Your task to perform on an android device: Open Android settings Image 0: 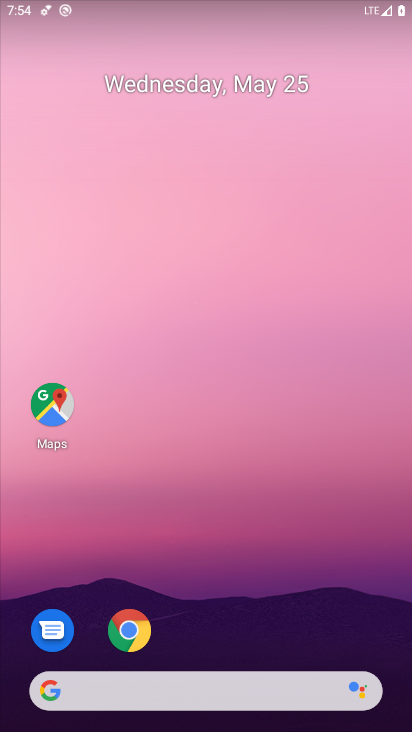
Step 0: drag from (180, 651) to (189, 357)
Your task to perform on an android device: Open Android settings Image 1: 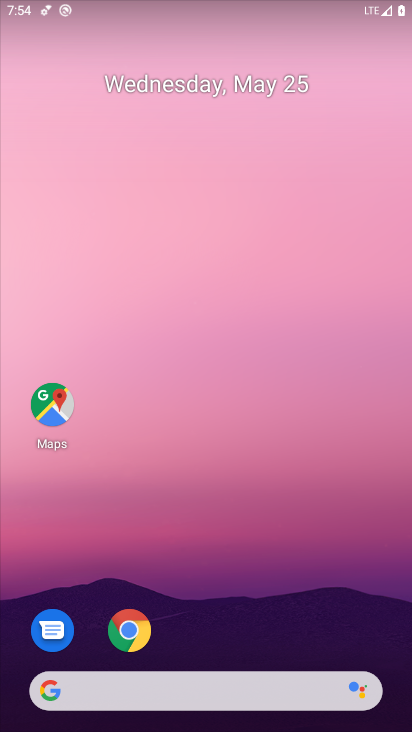
Step 1: drag from (207, 680) to (230, 243)
Your task to perform on an android device: Open Android settings Image 2: 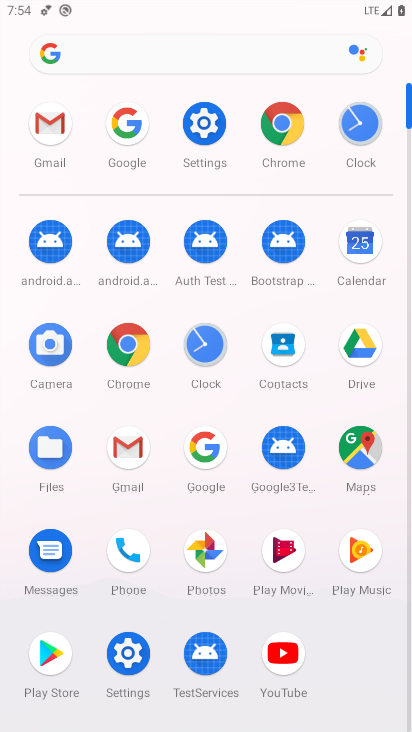
Step 2: click (205, 122)
Your task to perform on an android device: Open Android settings Image 3: 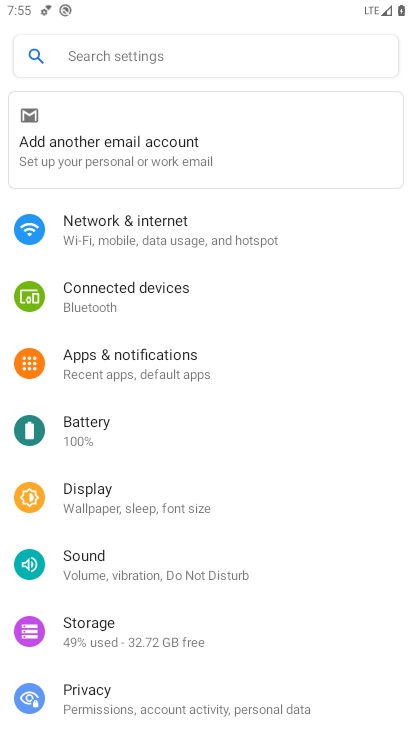
Step 3: task complete